Your task to perform on an android device: delete browsing data in the chrome app Image 0: 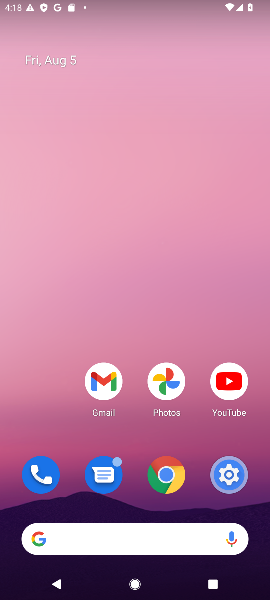
Step 0: click (161, 476)
Your task to perform on an android device: delete browsing data in the chrome app Image 1: 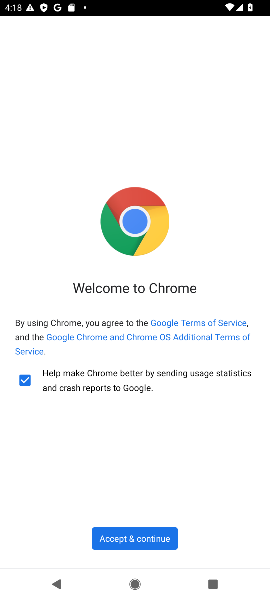
Step 1: click (164, 542)
Your task to perform on an android device: delete browsing data in the chrome app Image 2: 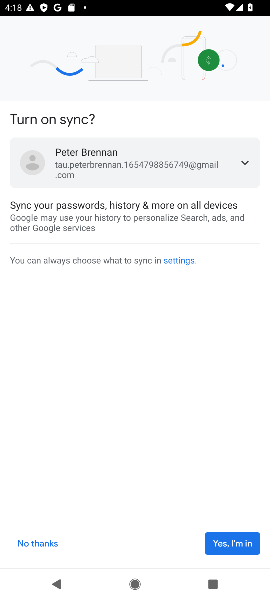
Step 2: click (250, 542)
Your task to perform on an android device: delete browsing data in the chrome app Image 3: 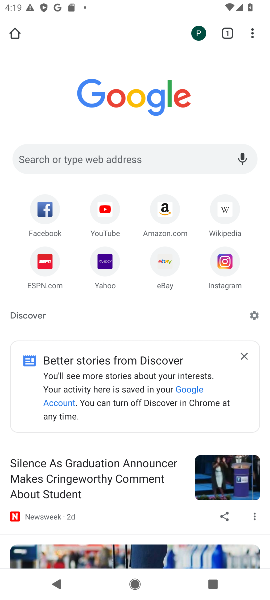
Step 3: click (254, 31)
Your task to perform on an android device: delete browsing data in the chrome app Image 4: 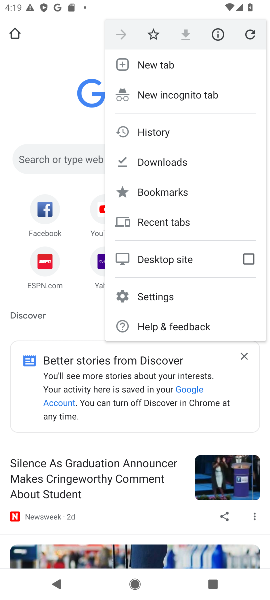
Step 4: click (158, 133)
Your task to perform on an android device: delete browsing data in the chrome app Image 5: 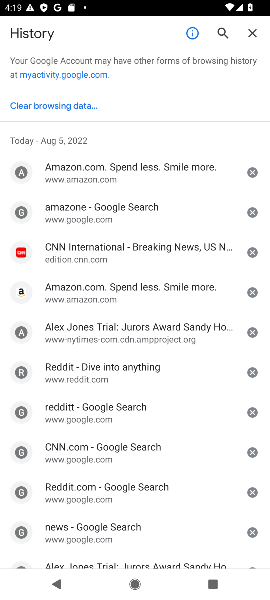
Step 5: click (60, 104)
Your task to perform on an android device: delete browsing data in the chrome app Image 6: 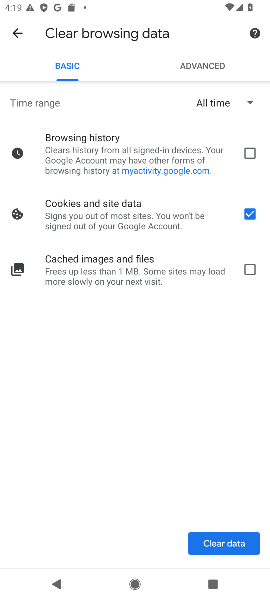
Step 6: click (247, 151)
Your task to perform on an android device: delete browsing data in the chrome app Image 7: 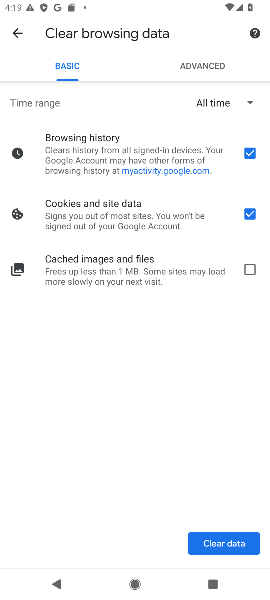
Step 7: click (249, 256)
Your task to perform on an android device: delete browsing data in the chrome app Image 8: 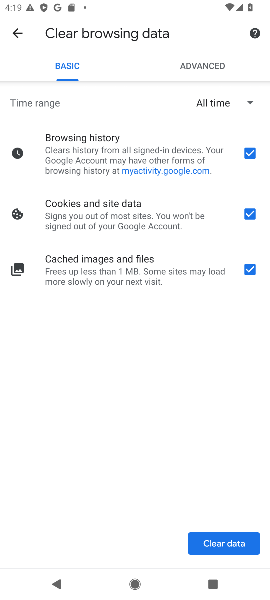
Step 8: click (248, 554)
Your task to perform on an android device: delete browsing data in the chrome app Image 9: 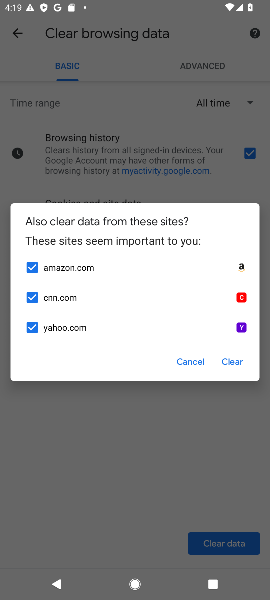
Step 9: click (234, 359)
Your task to perform on an android device: delete browsing data in the chrome app Image 10: 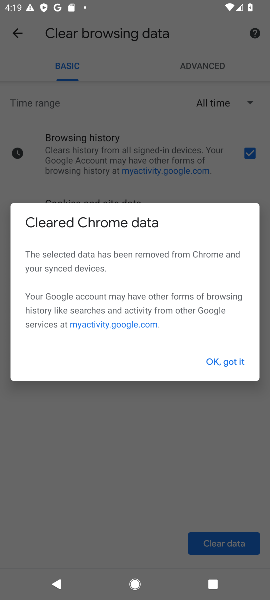
Step 10: click (233, 360)
Your task to perform on an android device: delete browsing data in the chrome app Image 11: 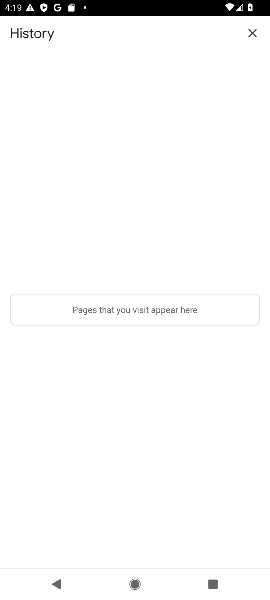
Step 11: task complete